Your task to perform on an android device: Go to network settings Image 0: 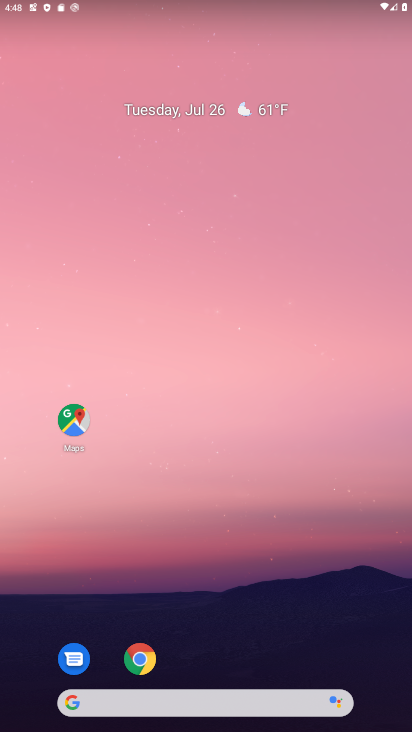
Step 0: drag from (285, 466) to (322, 183)
Your task to perform on an android device: Go to network settings Image 1: 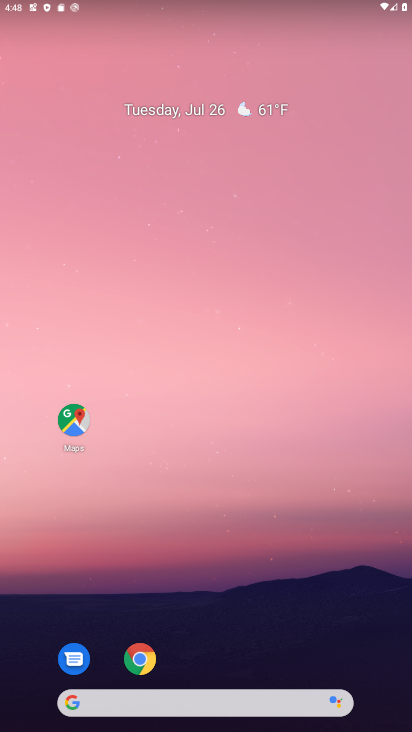
Step 1: drag from (255, 612) to (291, 45)
Your task to perform on an android device: Go to network settings Image 2: 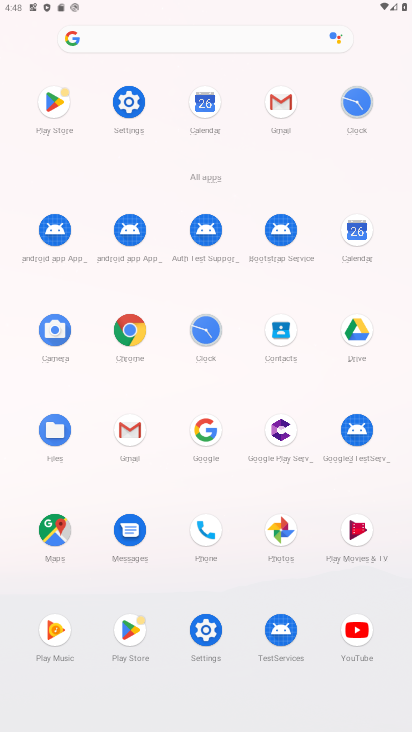
Step 2: click (204, 629)
Your task to perform on an android device: Go to network settings Image 3: 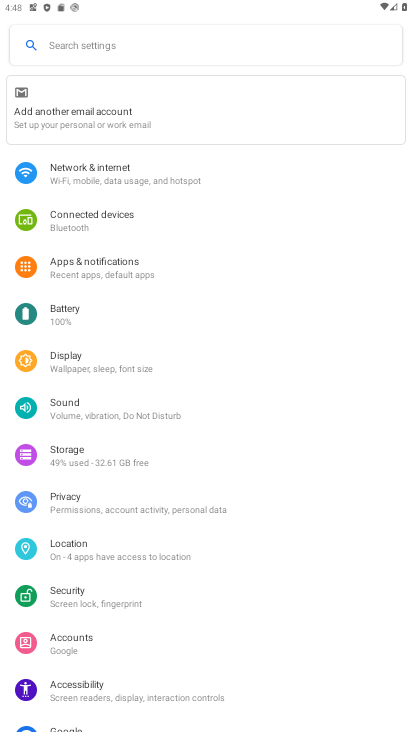
Step 3: click (121, 177)
Your task to perform on an android device: Go to network settings Image 4: 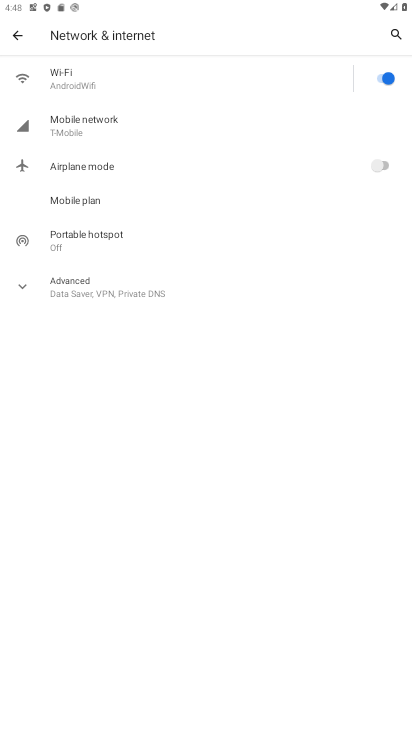
Step 4: task complete